Your task to perform on an android device: toggle translation in the chrome app Image 0: 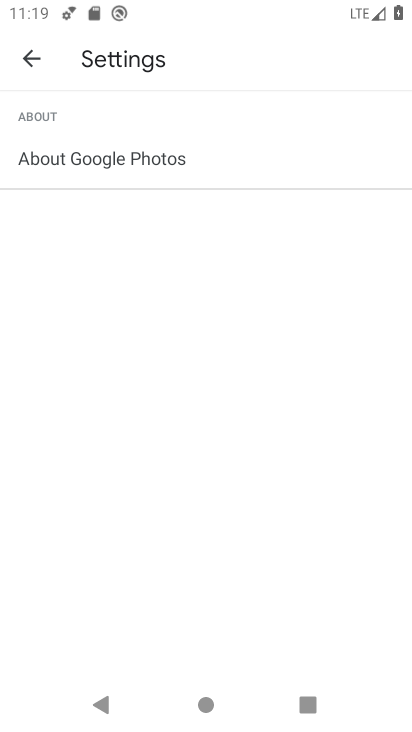
Step 0: click (28, 59)
Your task to perform on an android device: toggle translation in the chrome app Image 1: 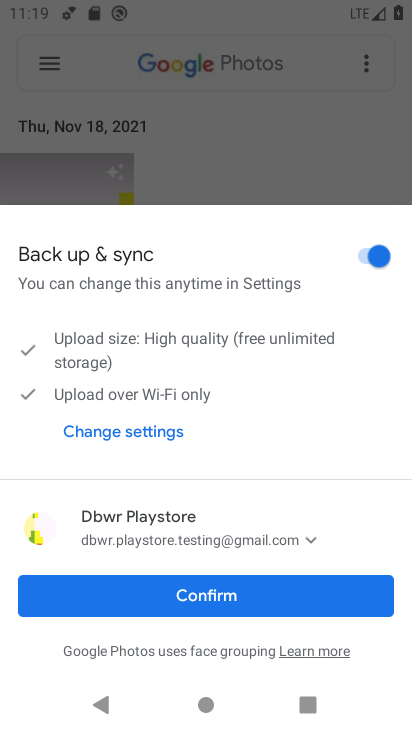
Step 1: click (196, 605)
Your task to perform on an android device: toggle translation in the chrome app Image 2: 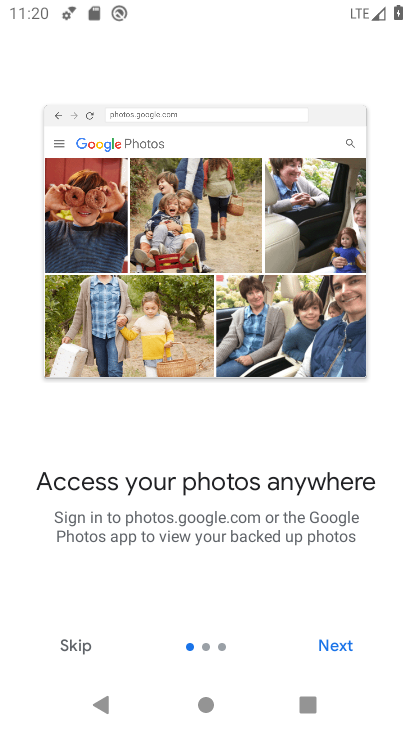
Step 2: click (334, 638)
Your task to perform on an android device: toggle translation in the chrome app Image 3: 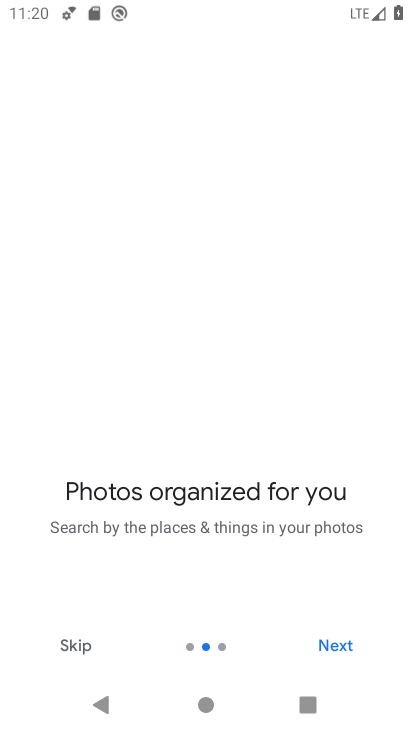
Step 3: click (336, 640)
Your task to perform on an android device: toggle translation in the chrome app Image 4: 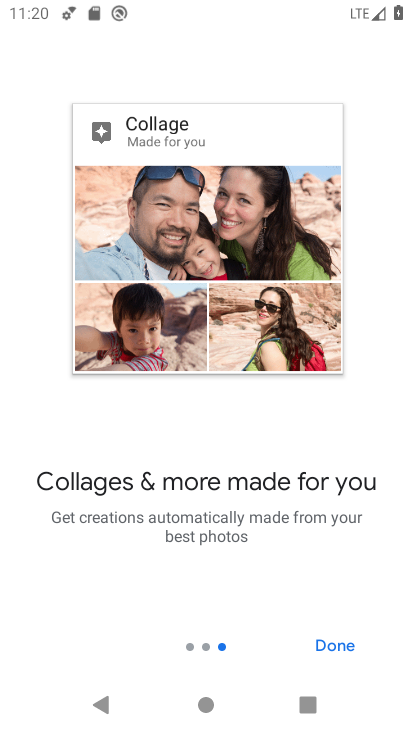
Step 4: click (336, 640)
Your task to perform on an android device: toggle translation in the chrome app Image 5: 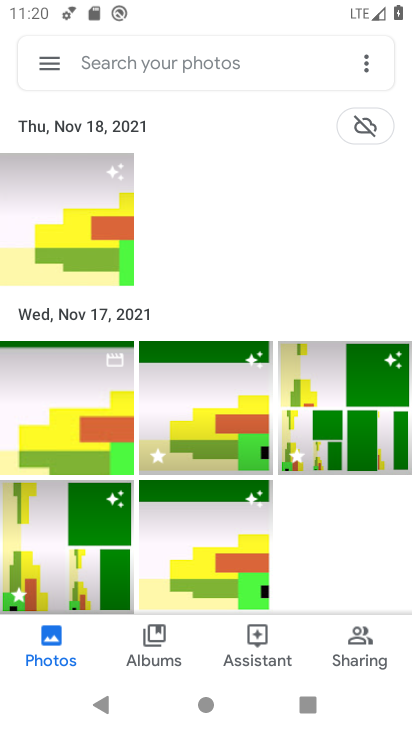
Step 5: press home button
Your task to perform on an android device: toggle translation in the chrome app Image 6: 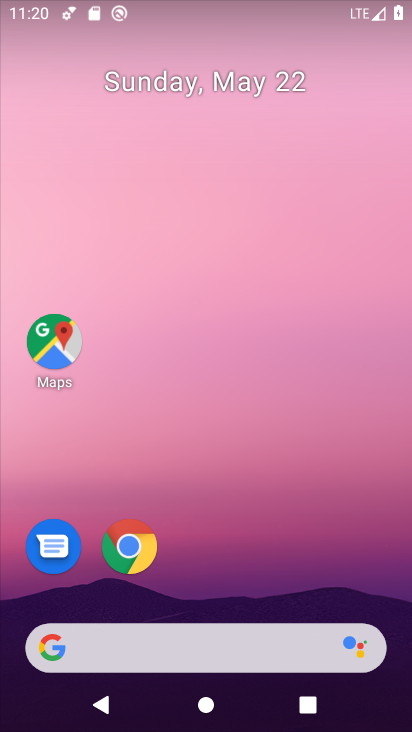
Step 6: click (126, 546)
Your task to perform on an android device: toggle translation in the chrome app Image 7: 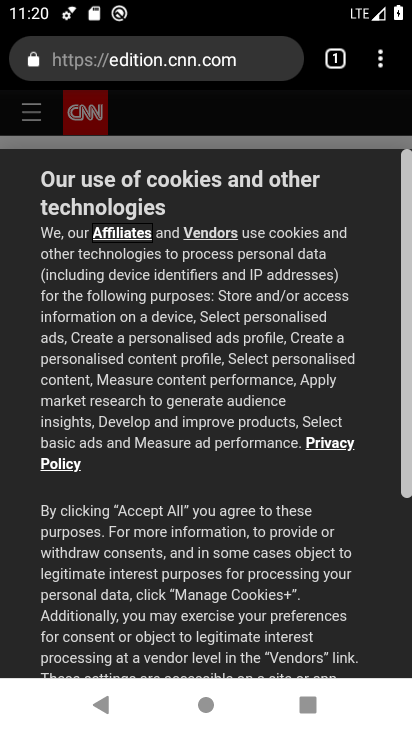
Step 7: click (379, 65)
Your task to perform on an android device: toggle translation in the chrome app Image 8: 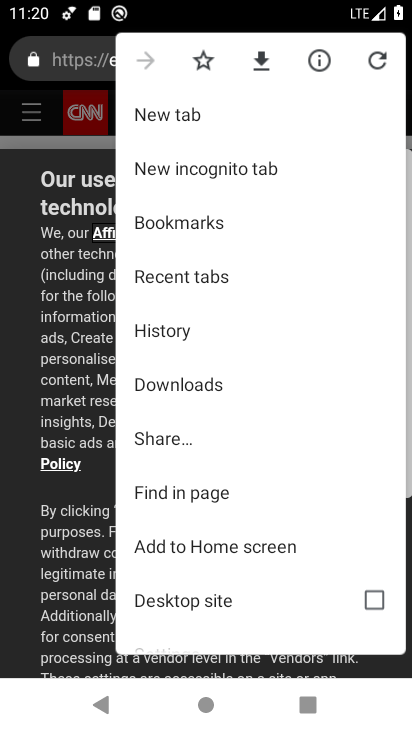
Step 8: drag from (250, 573) to (235, 345)
Your task to perform on an android device: toggle translation in the chrome app Image 9: 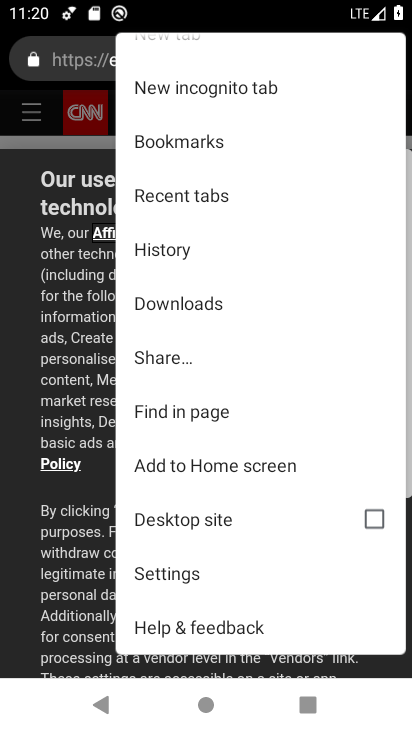
Step 9: click (194, 577)
Your task to perform on an android device: toggle translation in the chrome app Image 10: 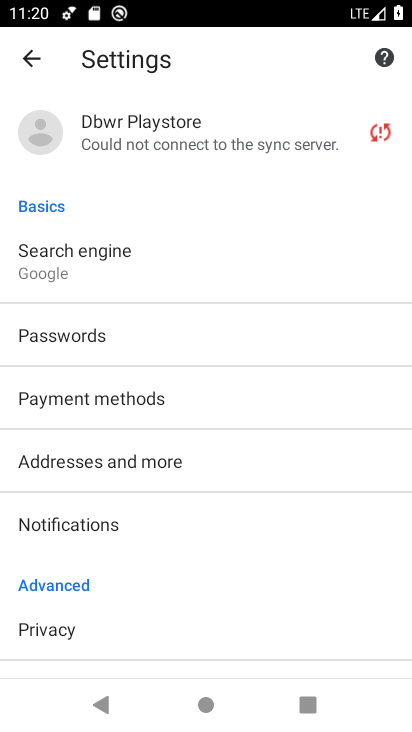
Step 10: drag from (194, 577) to (216, 230)
Your task to perform on an android device: toggle translation in the chrome app Image 11: 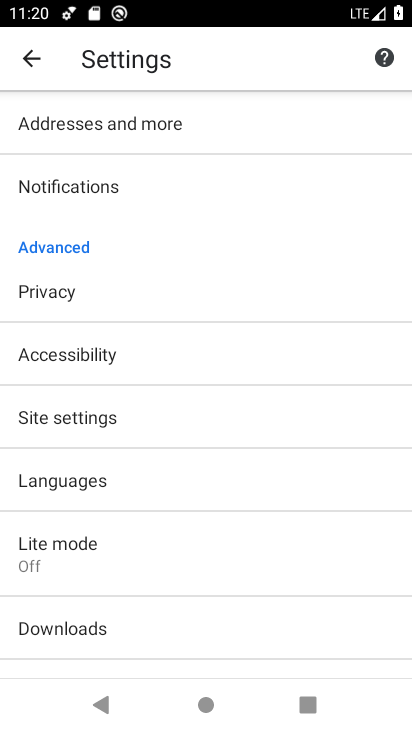
Step 11: drag from (145, 519) to (151, 470)
Your task to perform on an android device: toggle translation in the chrome app Image 12: 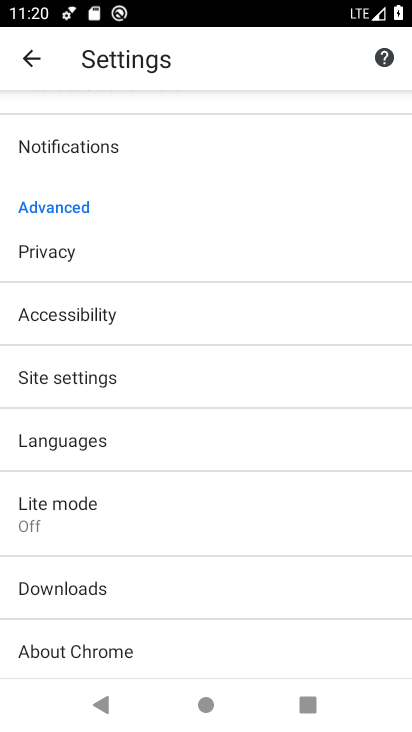
Step 12: drag from (156, 555) to (169, 322)
Your task to perform on an android device: toggle translation in the chrome app Image 13: 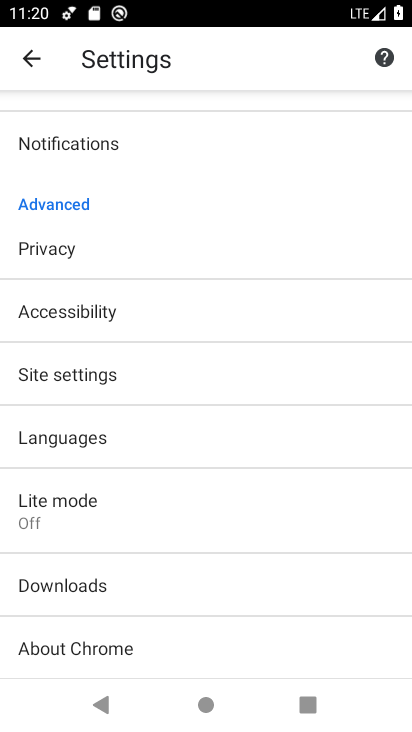
Step 13: click (30, 60)
Your task to perform on an android device: toggle translation in the chrome app Image 14: 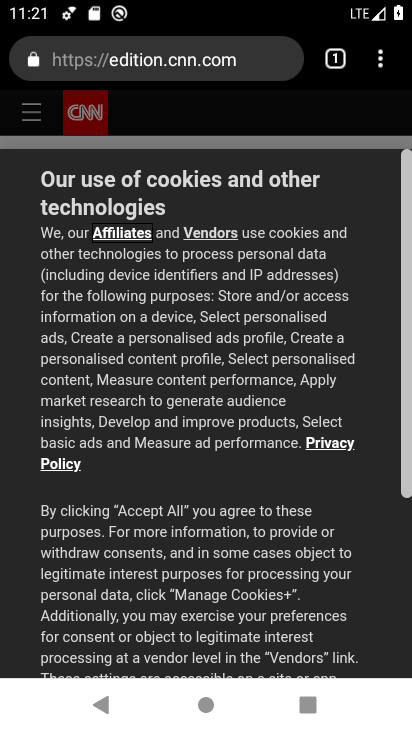
Step 14: click (390, 58)
Your task to perform on an android device: toggle translation in the chrome app Image 15: 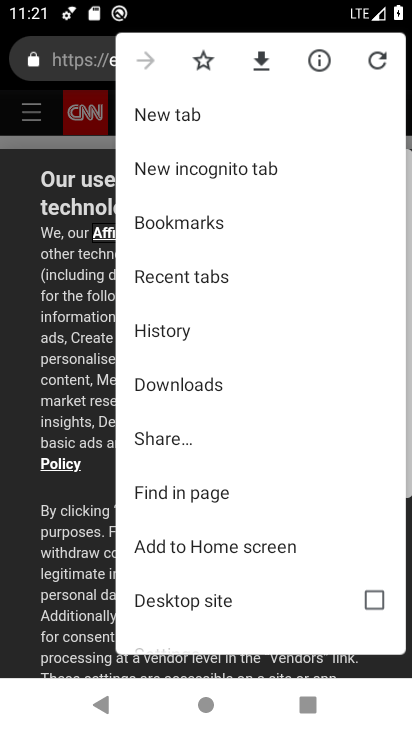
Step 15: task complete